Your task to perform on an android device: search for starred emails in the gmail app Image 0: 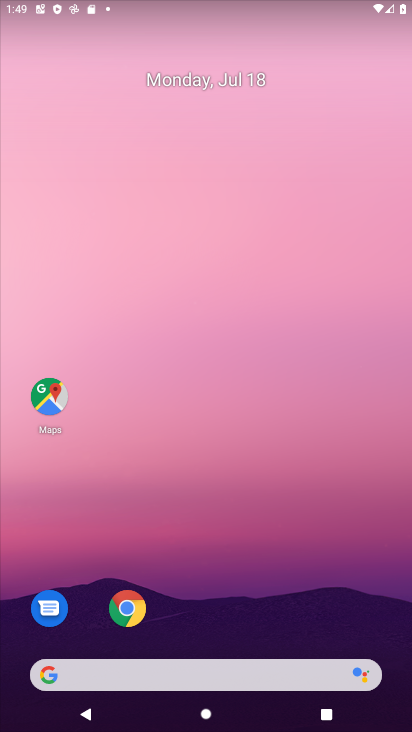
Step 0: drag from (341, 603) to (220, 58)
Your task to perform on an android device: search for starred emails in the gmail app Image 1: 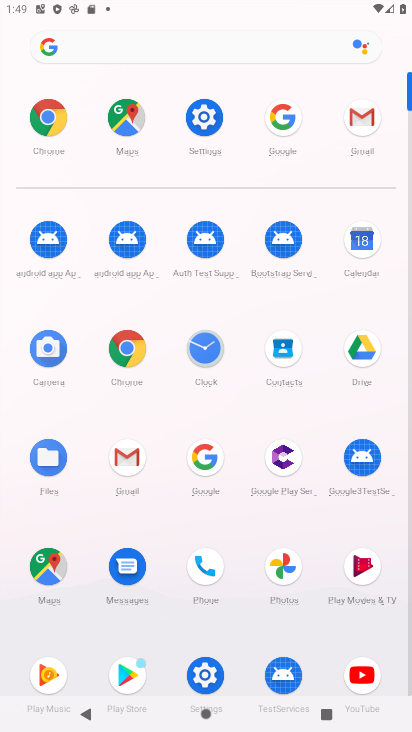
Step 1: click (108, 451)
Your task to perform on an android device: search for starred emails in the gmail app Image 2: 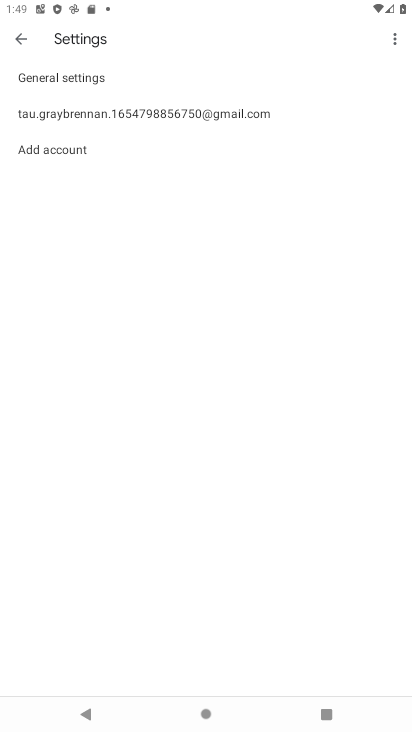
Step 2: press back button
Your task to perform on an android device: search for starred emails in the gmail app Image 3: 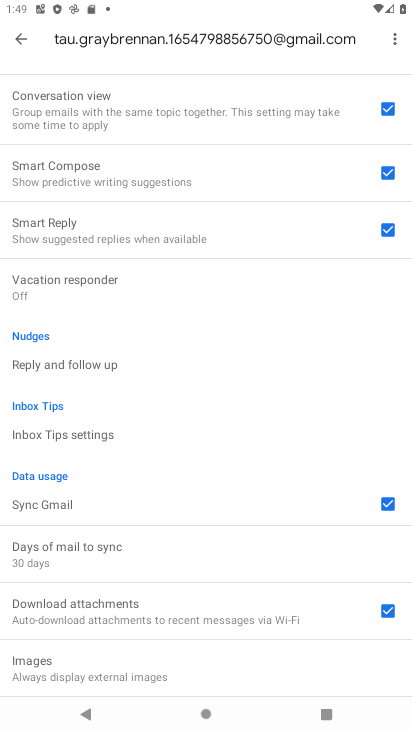
Step 3: press back button
Your task to perform on an android device: search for starred emails in the gmail app Image 4: 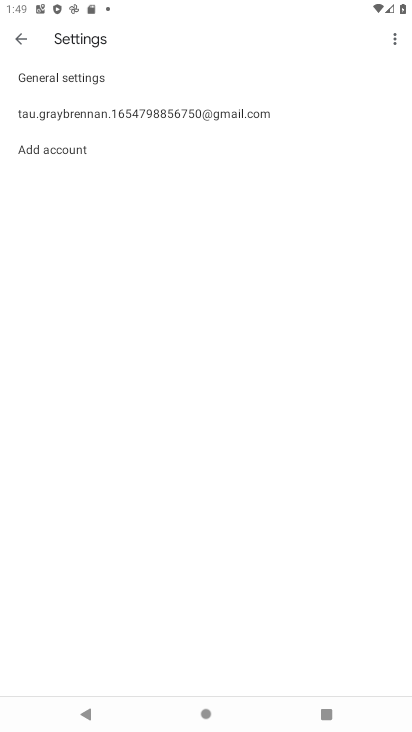
Step 4: press back button
Your task to perform on an android device: search for starred emails in the gmail app Image 5: 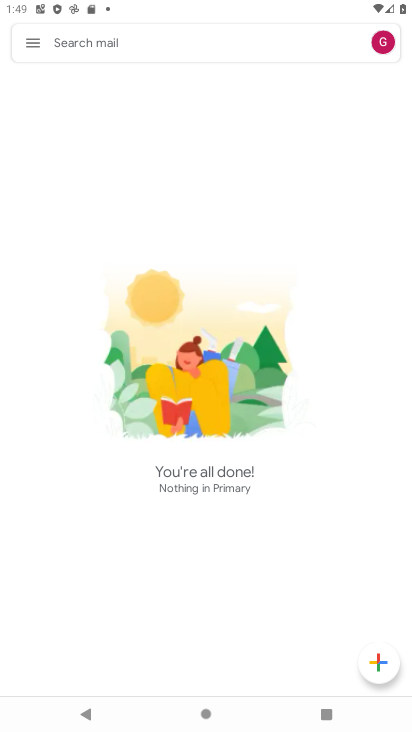
Step 5: click (34, 45)
Your task to perform on an android device: search for starred emails in the gmail app Image 6: 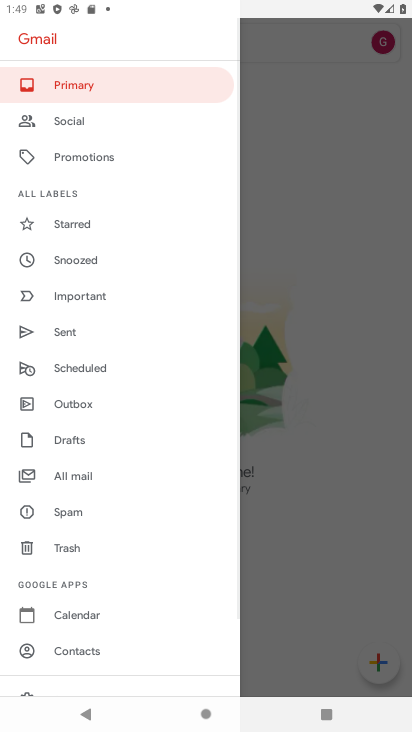
Step 6: click (53, 233)
Your task to perform on an android device: search for starred emails in the gmail app Image 7: 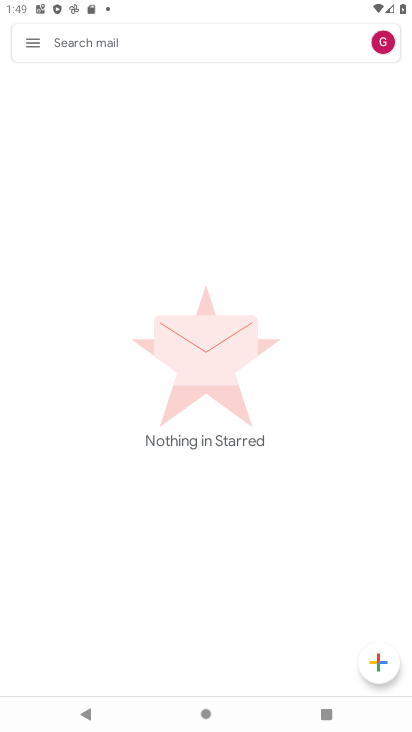
Step 7: task complete